Your task to perform on an android device: Open Google Chrome Image 0: 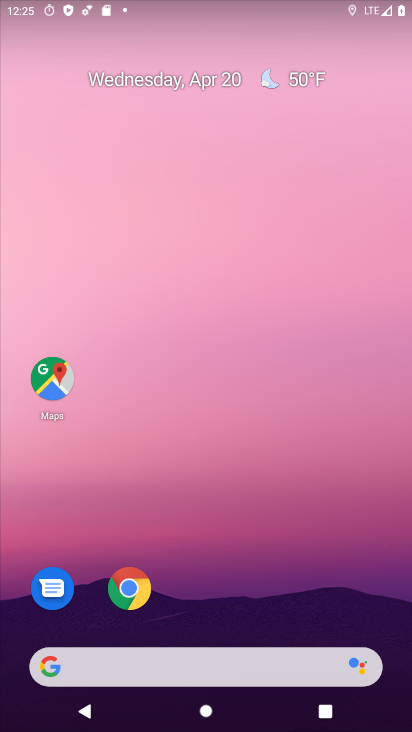
Step 0: click (124, 595)
Your task to perform on an android device: Open Google Chrome Image 1: 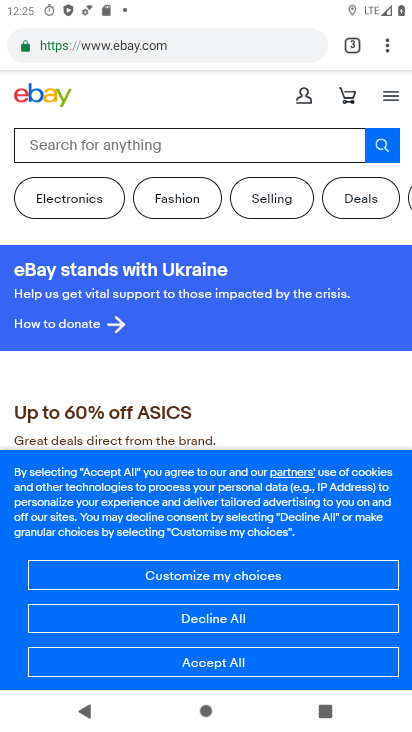
Step 1: task complete